Your task to perform on an android device: Open Google Chrome and open the bookmarks view Image 0: 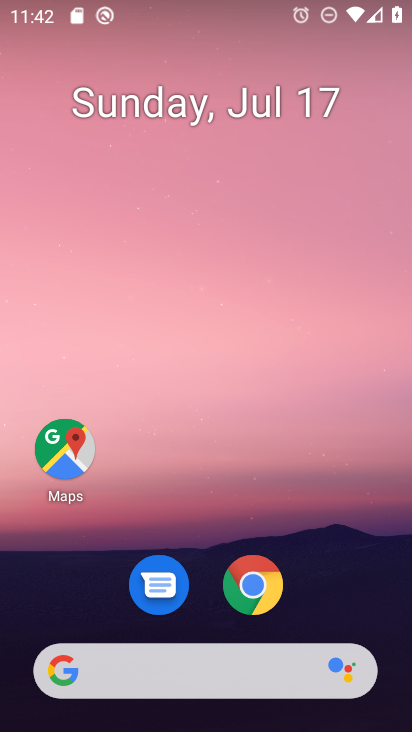
Step 0: click (270, 592)
Your task to perform on an android device: Open Google Chrome and open the bookmarks view Image 1: 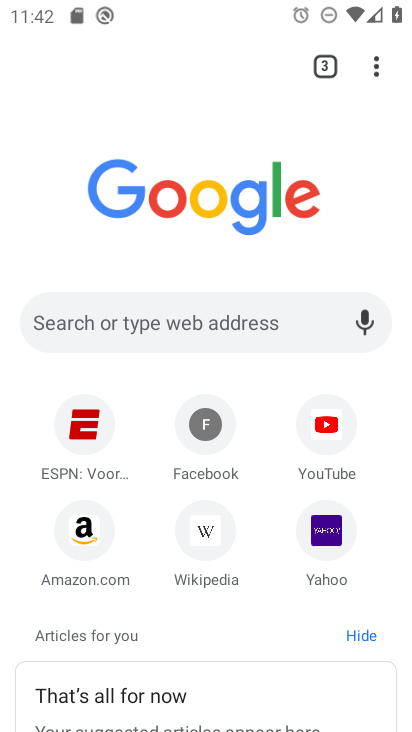
Step 1: click (373, 64)
Your task to perform on an android device: Open Google Chrome and open the bookmarks view Image 2: 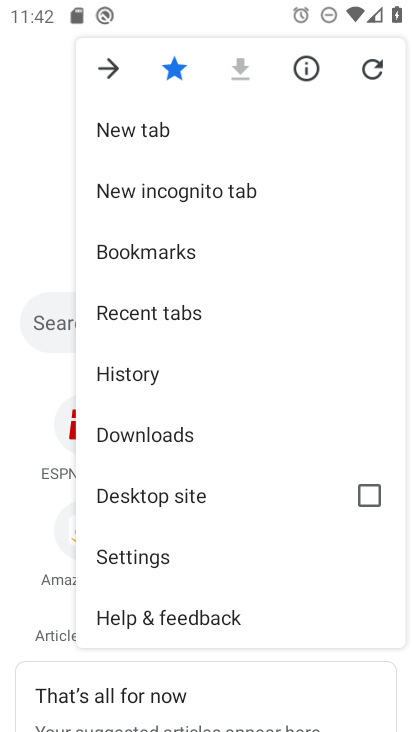
Step 2: click (205, 255)
Your task to perform on an android device: Open Google Chrome and open the bookmarks view Image 3: 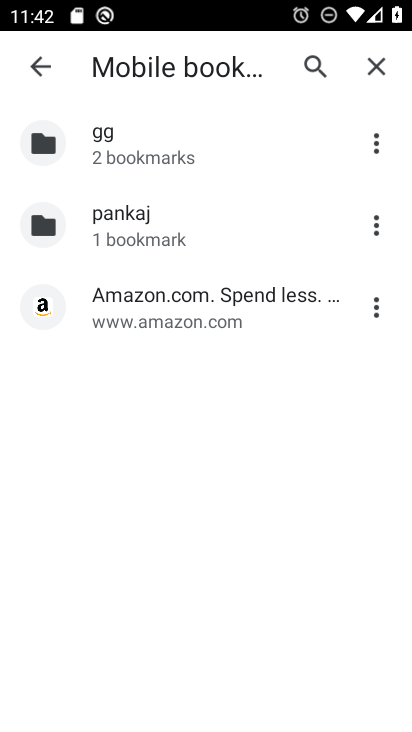
Step 3: task complete